Your task to perform on an android device: Open the calendar app, open the side menu, and click the "Day" option Image 0: 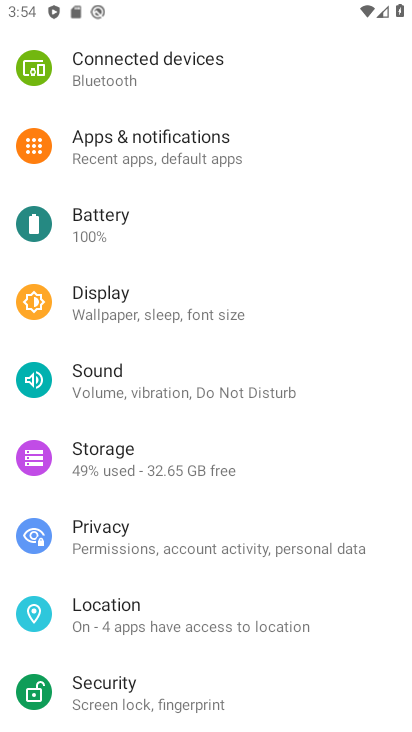
Step 0: press home button
Your task to perform on an android device: Open the calendar app, open the side menu, and click the "Day" option Image 1: 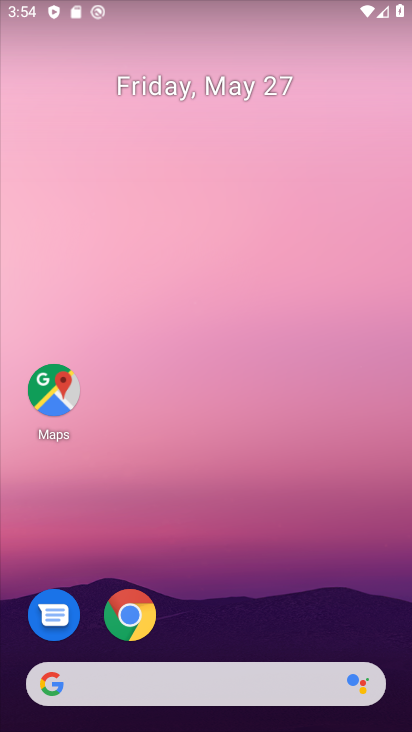
Step 1: drag from (155, 679) to (317, 102)
Your task to perform on an android device: Open the calendar app, open the side menu, and click the "Day" option Image 2: 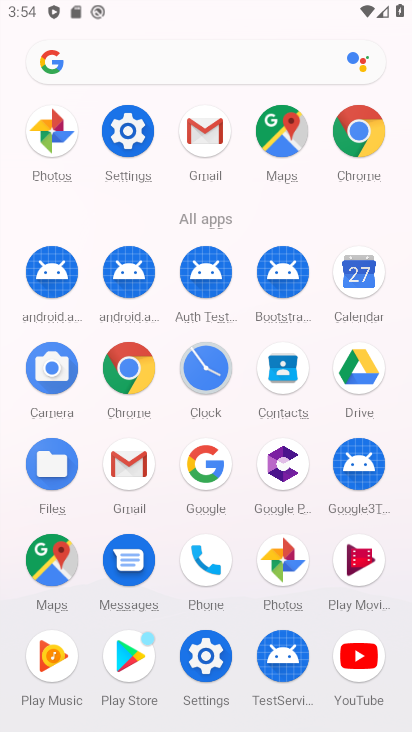
Step 2: click (354, 268)
Your task to perform on an android device: Open the calendar app, open the side menu, and click the "Day" option Image 3: 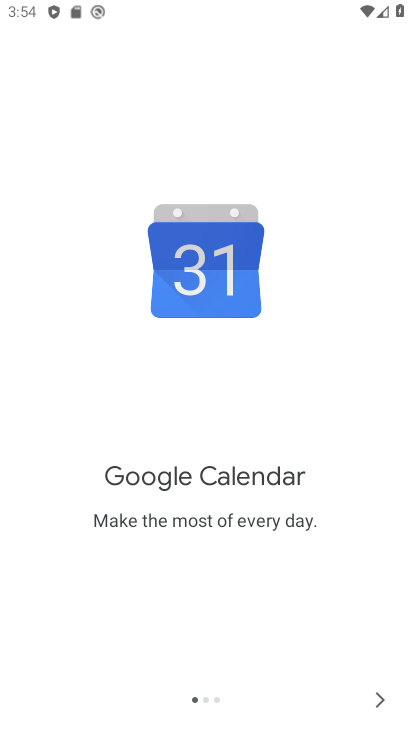
Step 3: click (386, 702)
Your task to perform on an android device: Open the calendar app, open the side menu, and click the "Day" option Image 4: 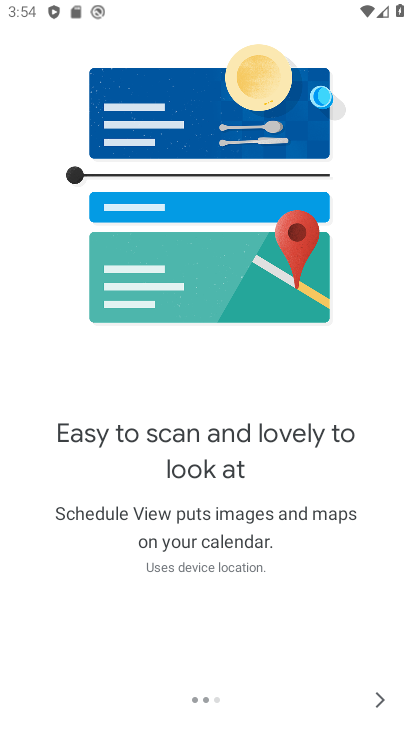
Step 4: click (386, 702)
Your task to perform on an android device: Open the calendar app, open the side menu, and click the "Day" option Image 5: 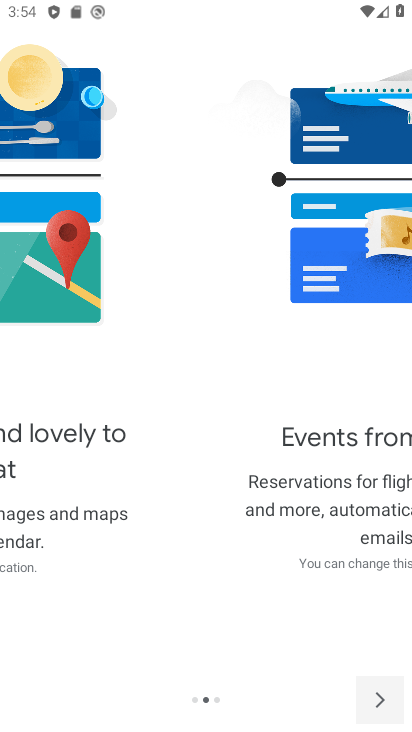
Step 5: click (386, 702)
Your task to perform on an android device: Open the calendar app, open the side menu, and click the "Day" option Image 6: 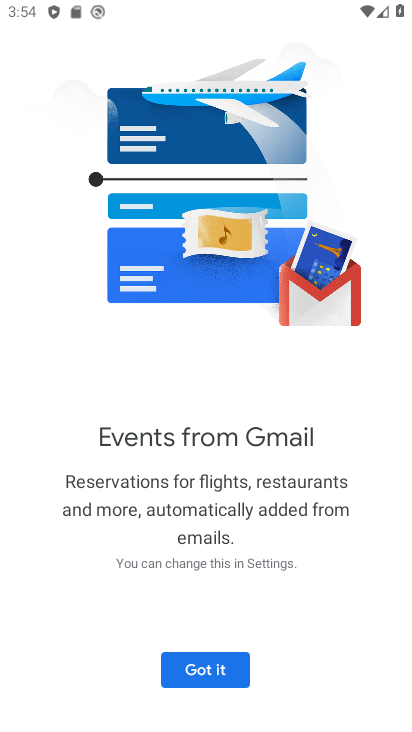
Step 6: click (386, 702)
Your task to perform on an android device: Open the calendar app, open the side menu, and click the "Day" option Image 7: 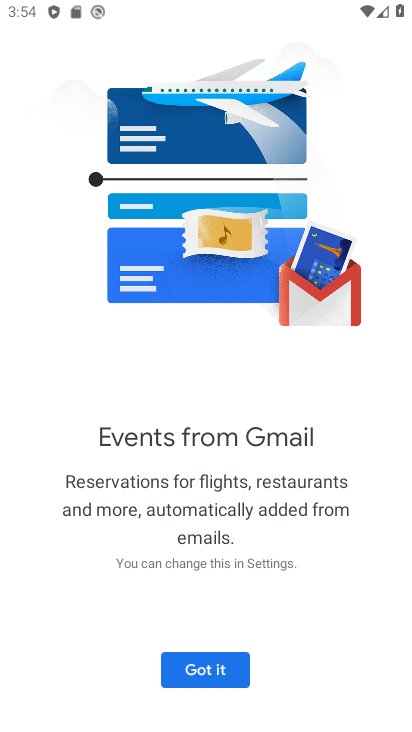
Step 7: click (215, 676)
Your task to perform on an android device: Open the calendar app, open the side menu, and click the "Day" option Image 8: 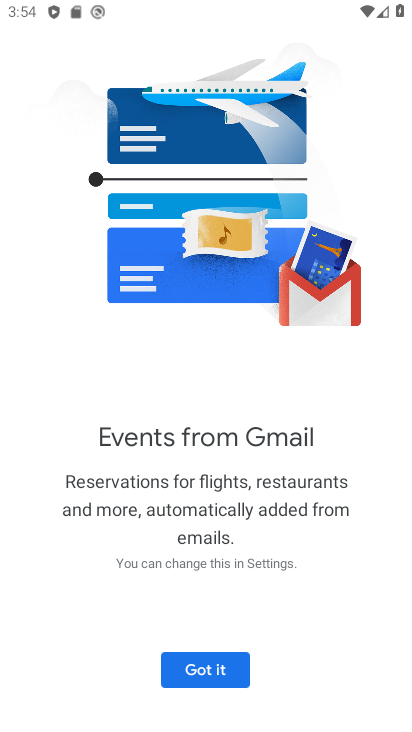
Step 8: click (181, 669)
Your task to perform on an android device: Open the calendar app, open the side menu, and click the "Day" option Image 9: 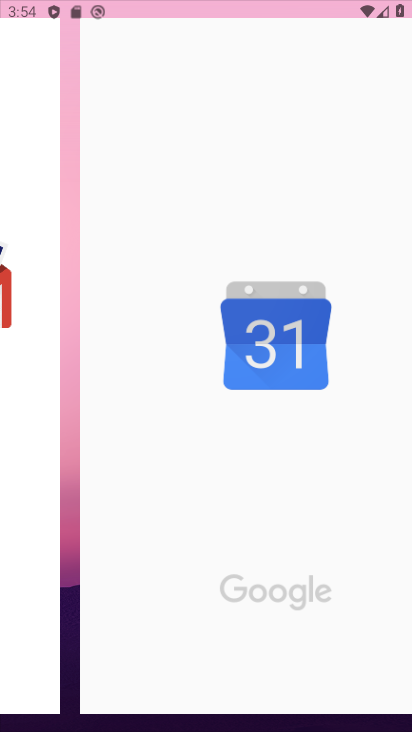
Step 9: click (226, 662)
Your task to perform on an android device: Open the calendar app, open the side menu, and click the "Day" option Image 10: 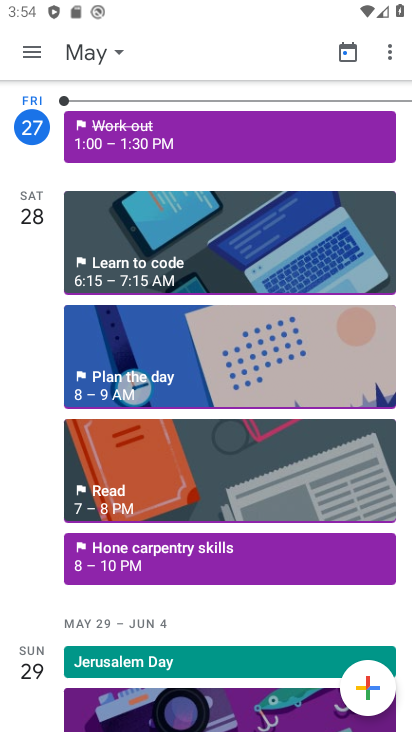
Step 10: click (32, 67)
Your task to perform on an android device: Open the calendar app, open the side menu, and click the "Day" option Image 11: 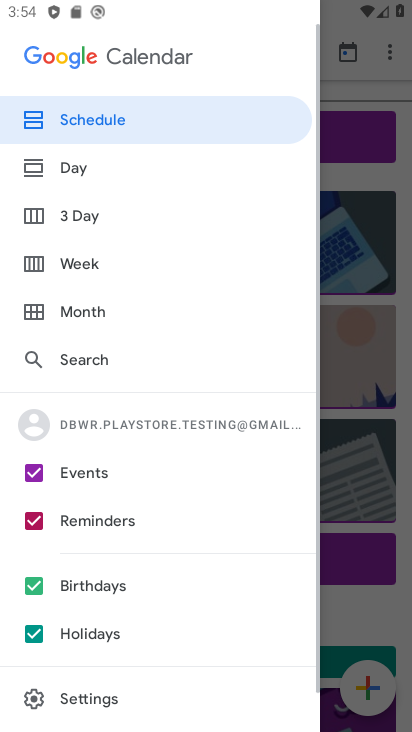
Step 11: click (143, 182)
Your task to perform on an android device: Open the calendar app, open the side menu, and click the "Day" option Image 12: 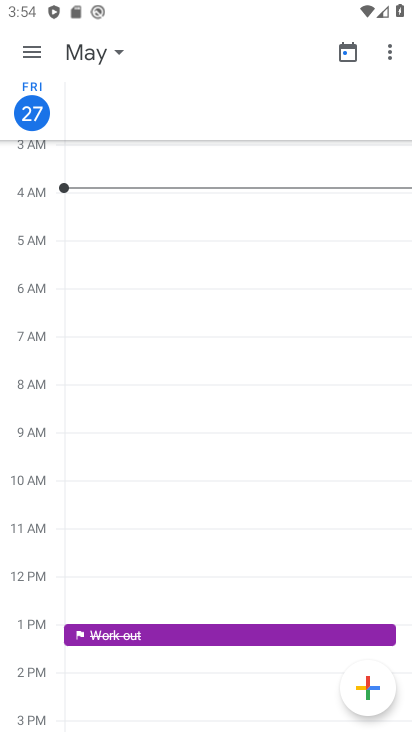
Step 12: task complete